Your task to perform on an android device: Search for the most popular books on Goodreads Image 0: 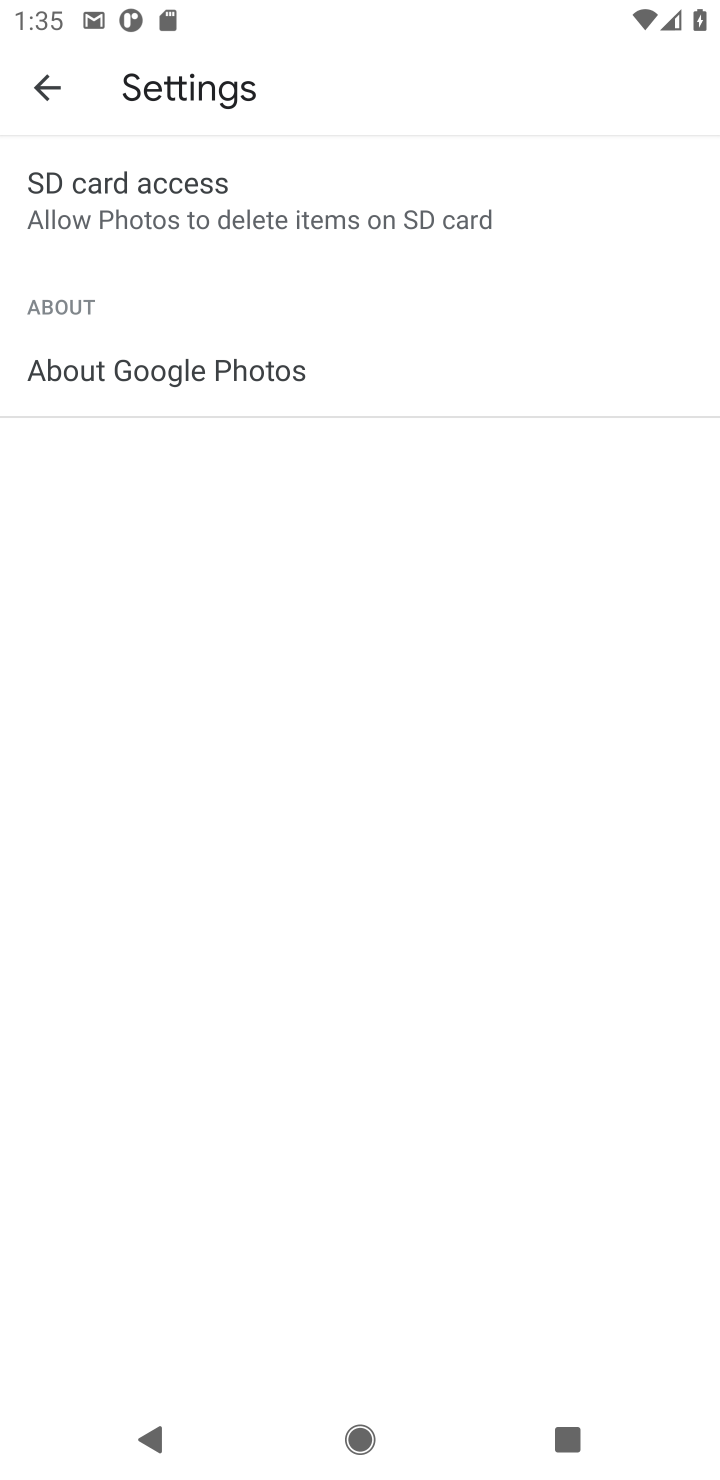
Step 0: task complete